Your task to perform on an android device: open app "Mercado Libre" (install if not already installed) Image 0: 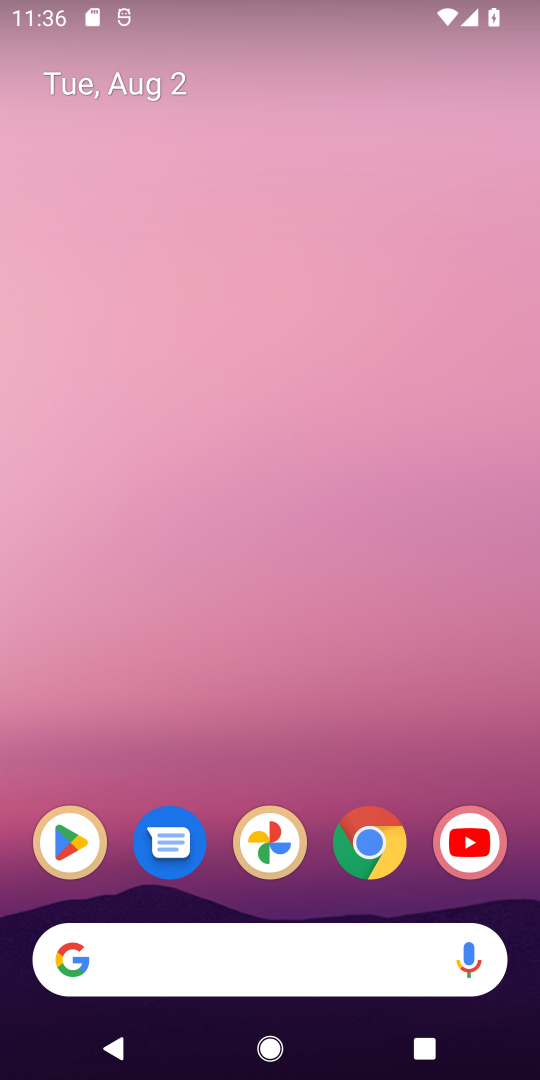
Step 0: drag from (232, 690) to (318, 8)
Your task to perform on an android device: open app "Mercado Libre" (install if not already installed) Image 1: 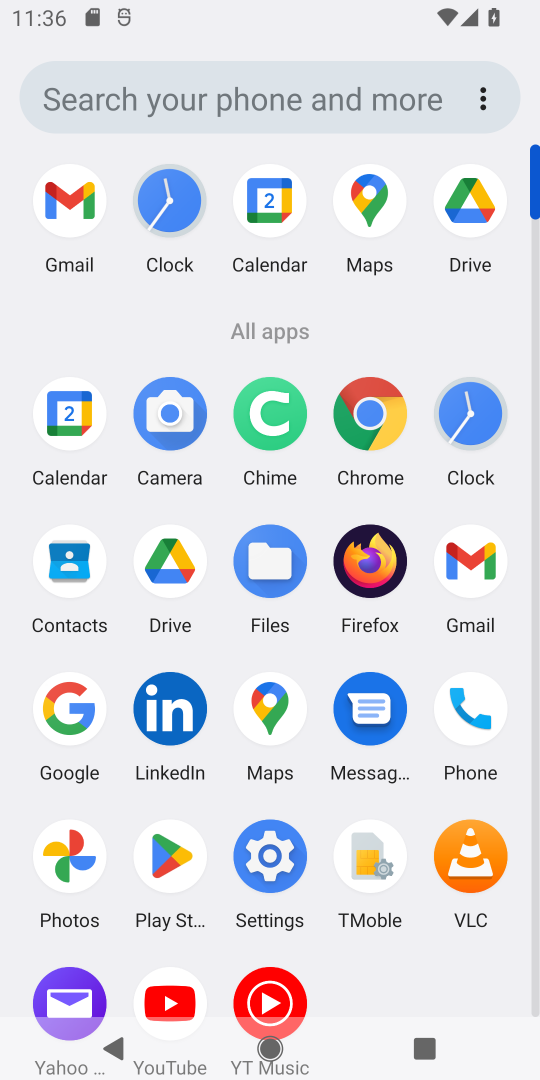
Step 1: click (167, 843)
Your task to perform on an android device: open app "Mercado Libre" (install if not already installed) Image 2: 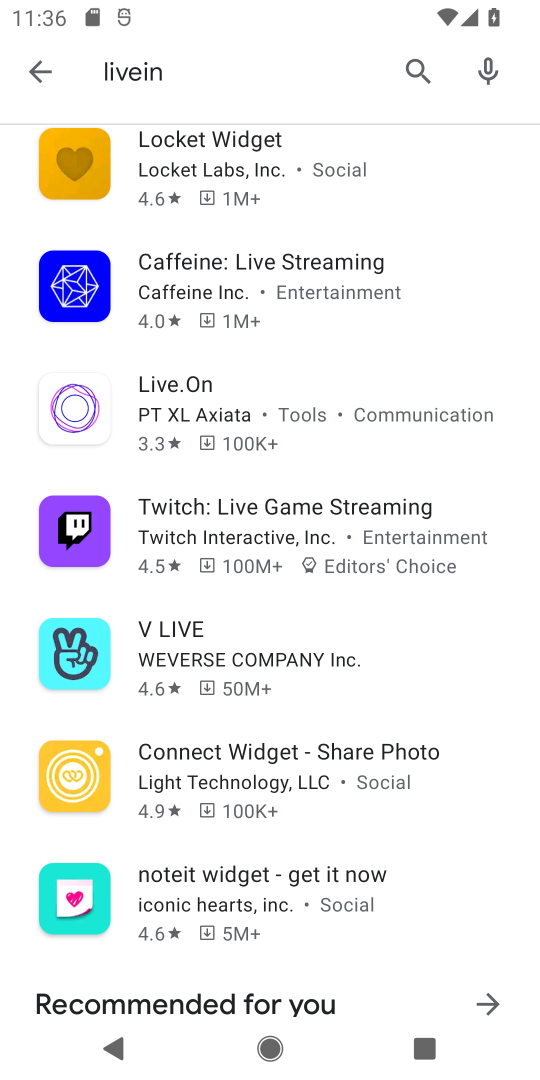
Step 2: click (415, 60)
Your task to perform on an android device: open app "Mercado Libre" (install if not already installed) Image 3: 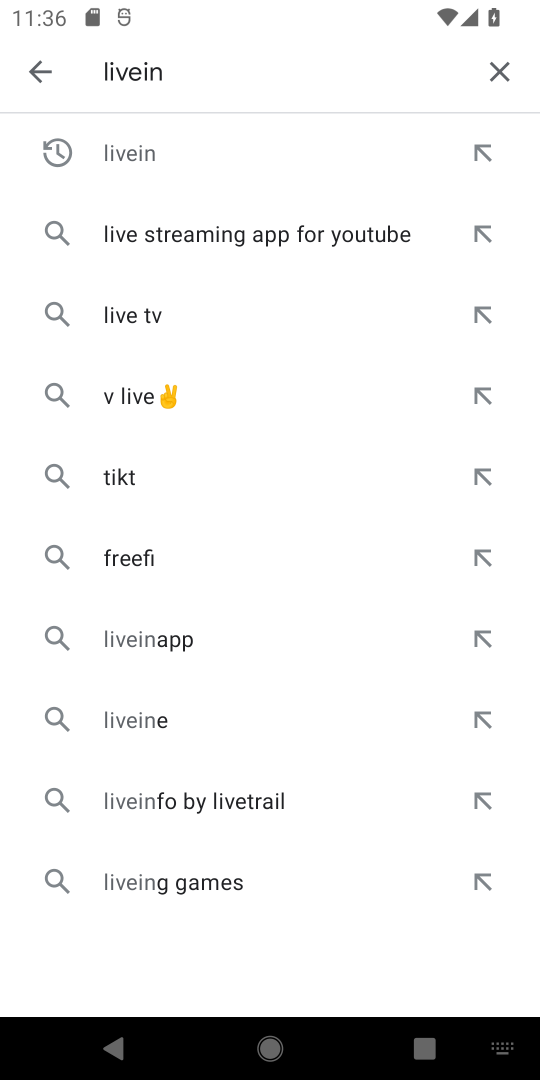
Step 3: click (499, 69)
Your task to perform on an android device: open app "Mercado Libre" (install if not already installed) Image 4: 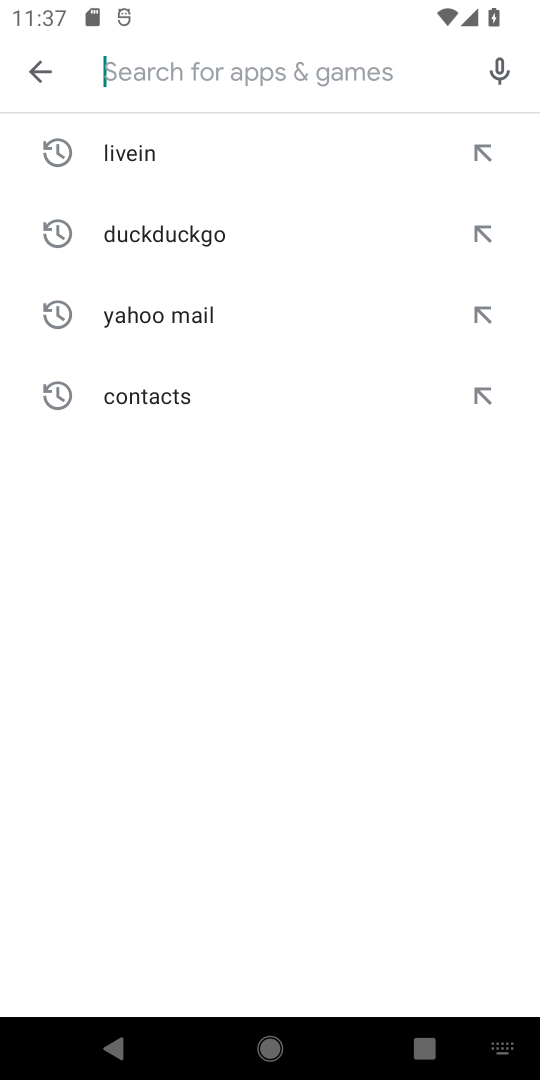
Step 4: type "Mercado Libre""
Your task to perform on an android device: open app "Mercado Libre" (install if not already installed) Image 5: 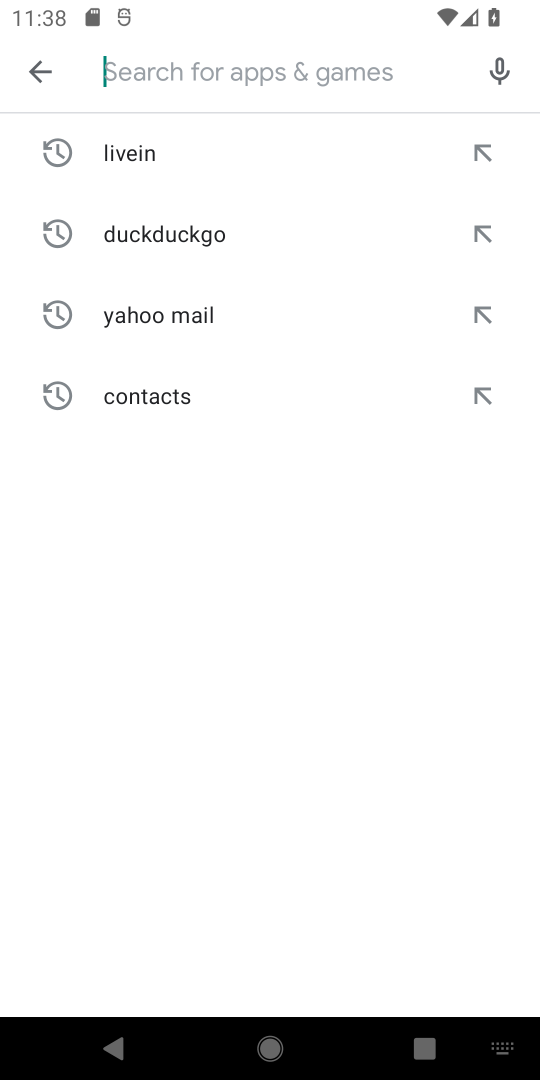
Step 5: type "Mercado libre"
Your task to perform on an android device: open app "Mercado Libre" (install if not already installed) Image 6: 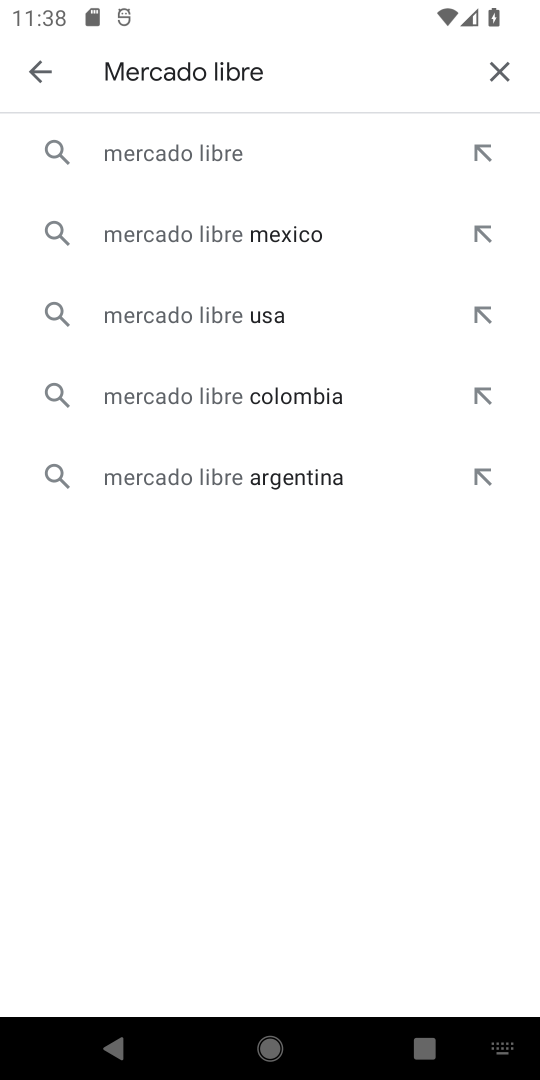
Step 6: click (173, 141)
Your task to perform on an android device: open app "Mercado Libre" (install if not already installed) Image 7: 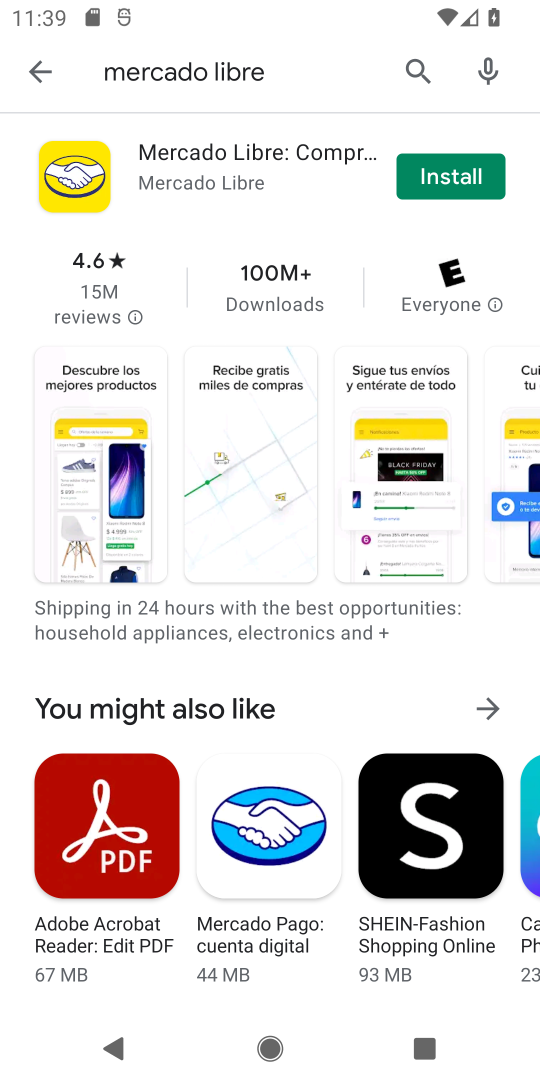
Step 7: click (455, 186)
Your task to perform on an android device: open app "Mercado Libre" (install if not already installed) Image 8: 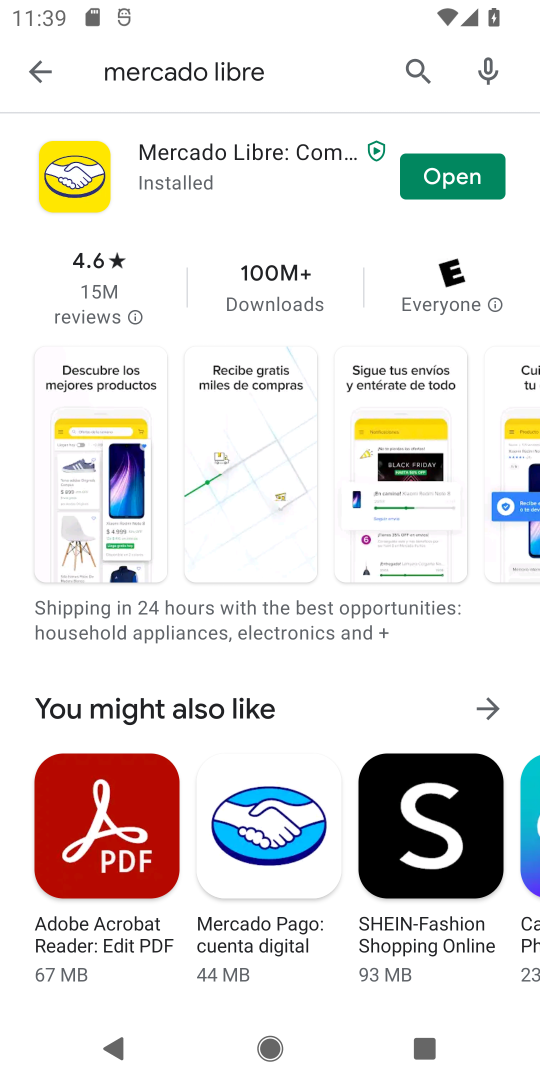
Step 8: click (462, 174)
Your task to perform on an android device: open app "Mercado Libre" (install if not already installed) Image 9: 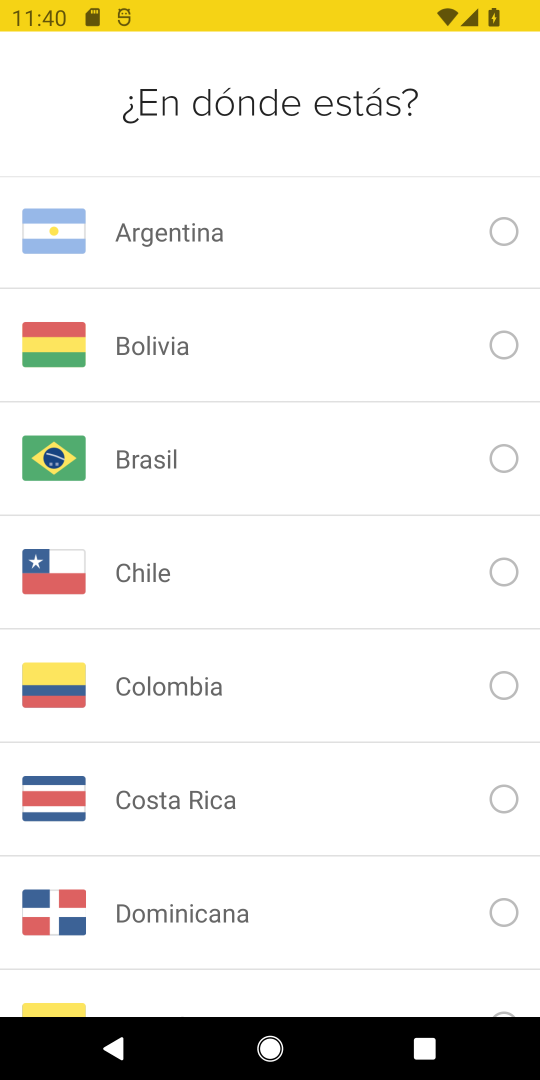
Step 9: task complete